Your task to perform on an android device: install app "WhatsApp Messenger" Image 0: 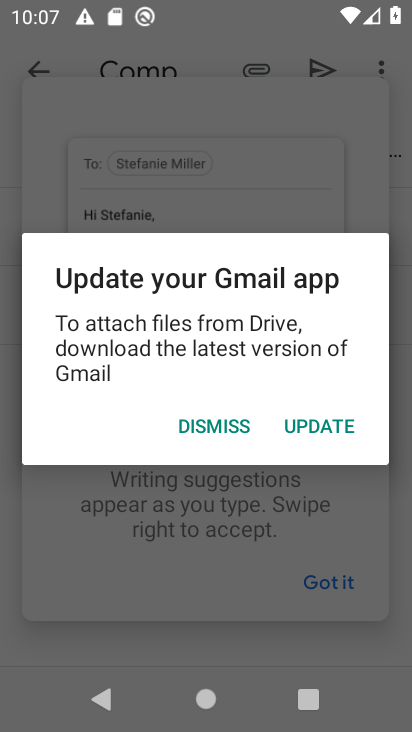
Step 0: press home button
Your task to perform on an android device: install app "WhatsApp Messenger" Image 1: 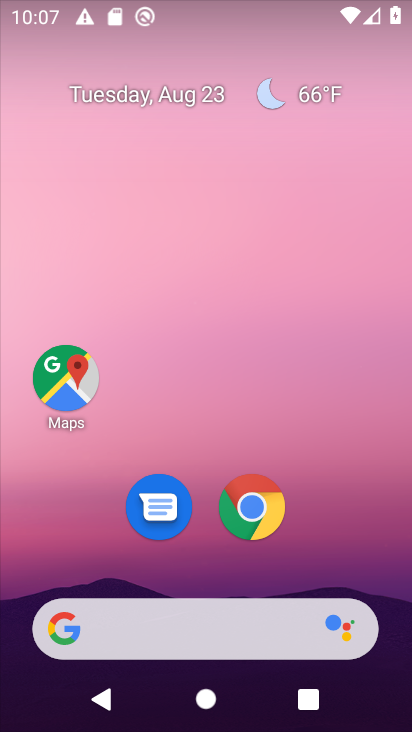
Step 1: drag from (398, 672) to (331, 174)
Your task to perform on an android device: install app "WhatsApp Messenger" Image 2: 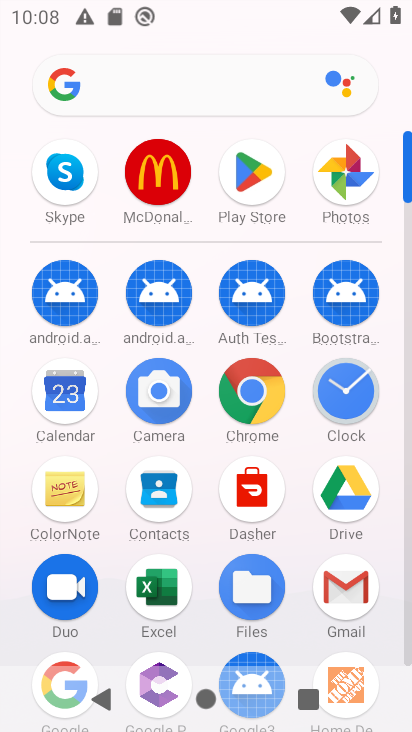
Step 2: drag from (300, 622) to (292, 430)
Your task to perform on an android device: install app "WhatsApp Messenger" Image 3: 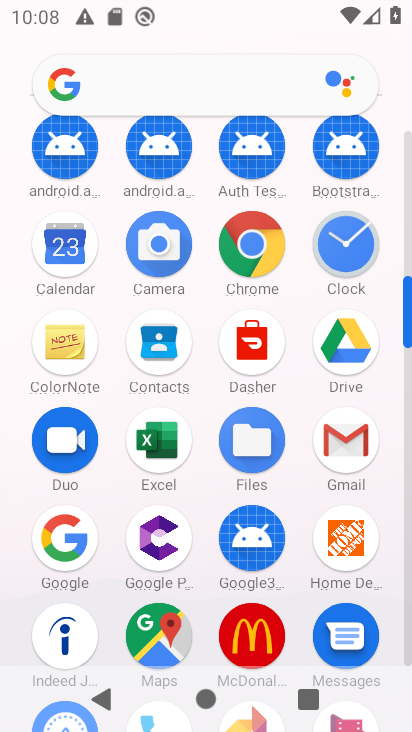
Step 3: drag from (304, 596) to (297, 467)
Your task to perform on an android device: install app "WhatsApp Messenger" Image 4: 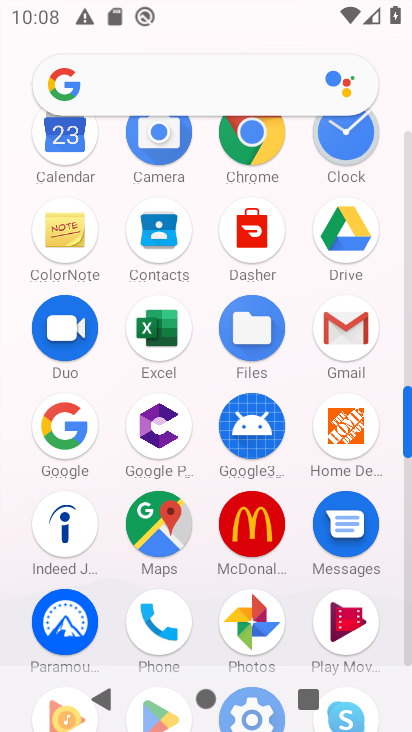
Step 4: drag from (295, 602) to (292, 386)
Your task to perform on an android device: install app "WhatsApp Messenger" Image 5: 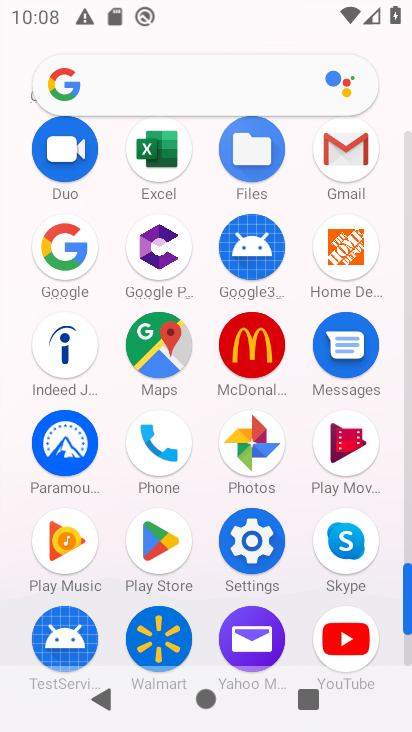
Step 5: click (155, 537)
Your task to perform on an android device: install app "WhatsApp Messenger" Image 6: 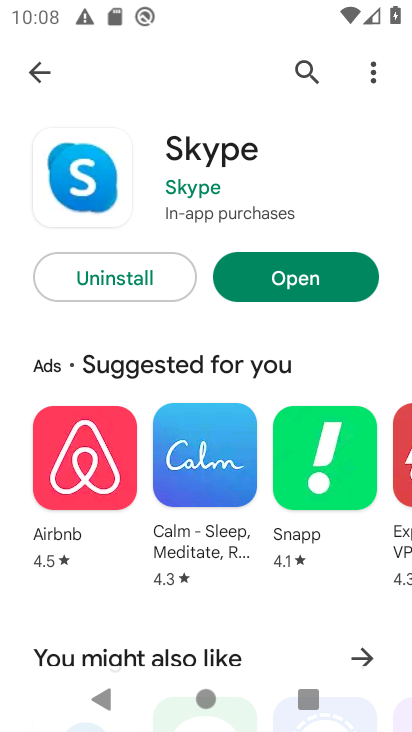
Step 6: click (300, 69)
Your task to perform on an android device: install app "WhatsApp Messenger" Image 7: 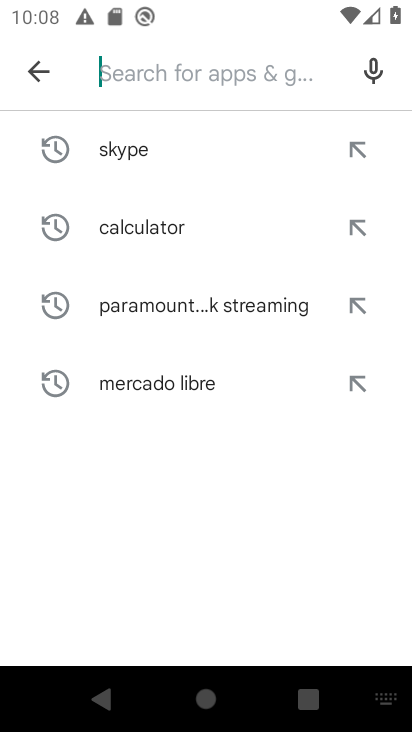
Step 7: type "WhatsApp Messenger"
Your task to perform on an android device: install app "WhatsApp Messenger" Image 8: 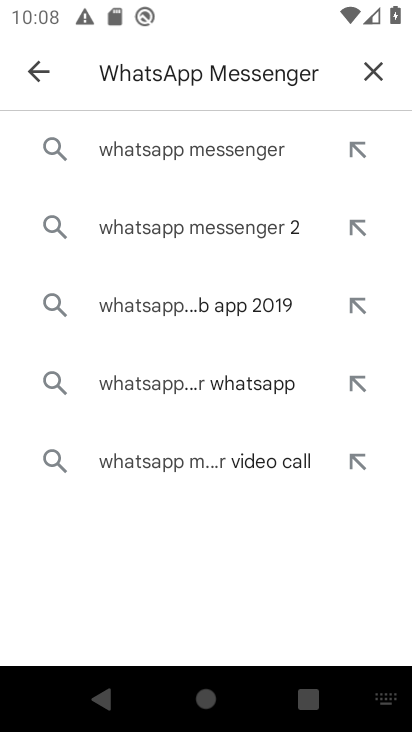
Step 8: click (144, 150)
Your task to perform on an android device: install app "WhatsApp Messenger" Image 9: 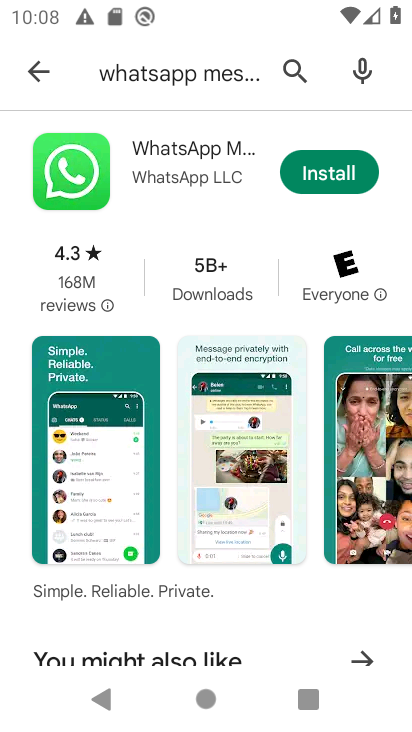
Step 9: click (144, 150)
Your task to perform on an android device: install app "WhatsApp Messenger" Image 10: 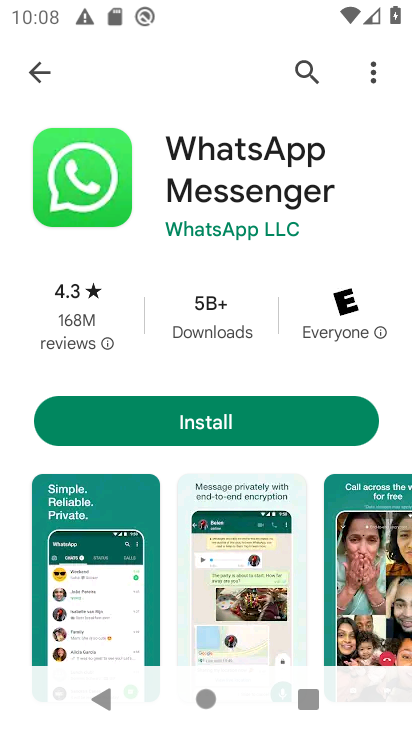
Step 10: click (200, 417)
Your task to perform on an android device: install app "WhatsApp Messenger" Image 11: 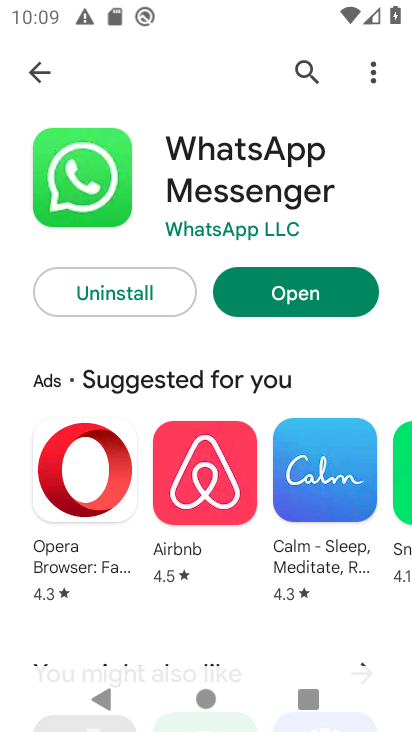
Step 11: task complete